Your task to perform on an android device: empty trash in google photos Image 0: 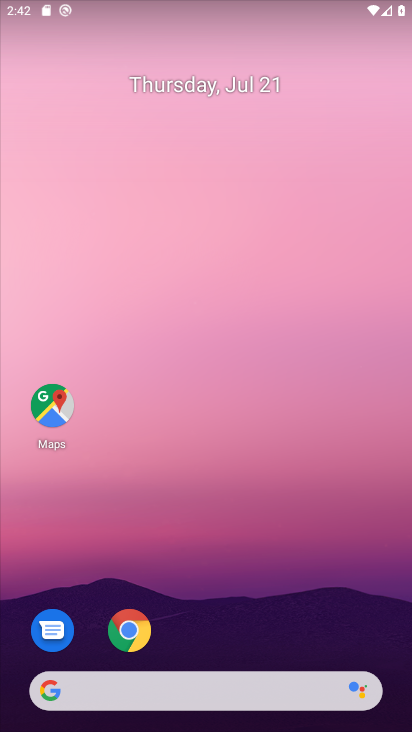
Step 0: drag from (197, 661) to (130, 88)
Your task to perform on an android device: empty trash in google photos Image 1: 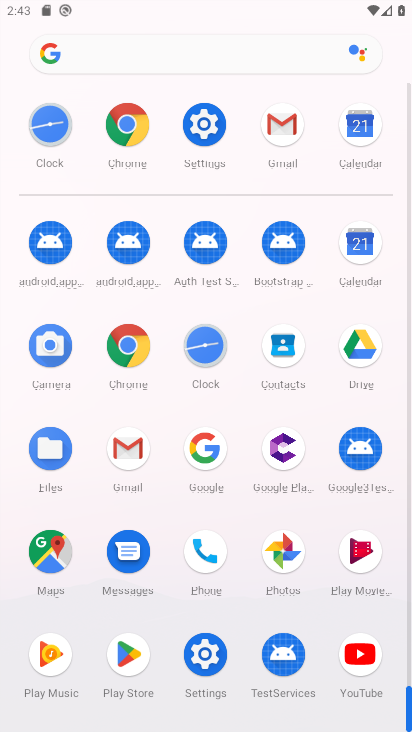
Step 1: click (295, 552)
Your task to perform on an android device: empty trash in google photos Image 2: 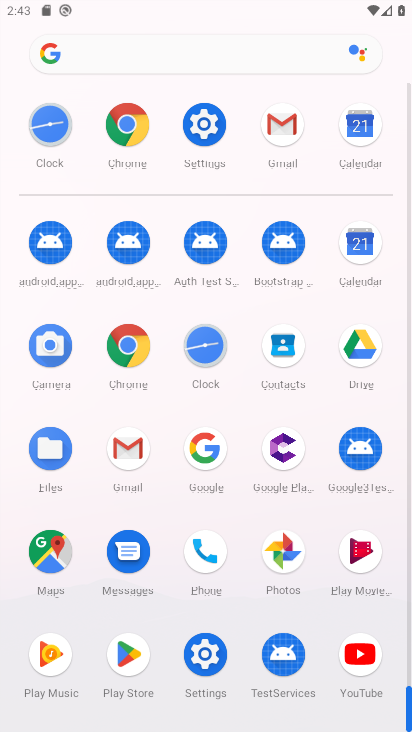
Step 2: click (292, 550)
Your task to perform on an android device: empty trash in google photos Image 3: 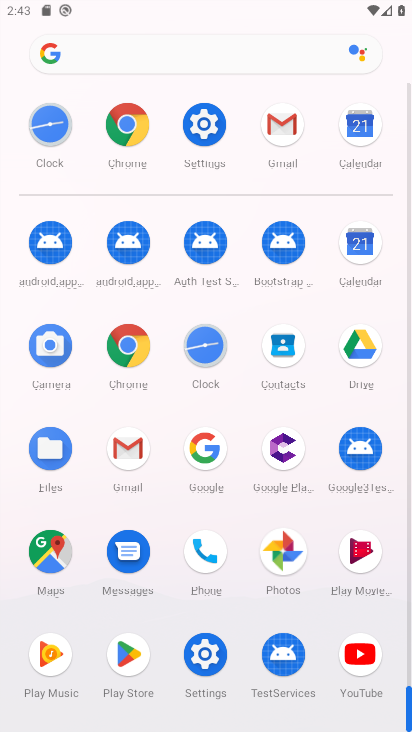
Step 3: click (292, 550)
Your task to perform on an android device: empty trash in google photos Image 4: 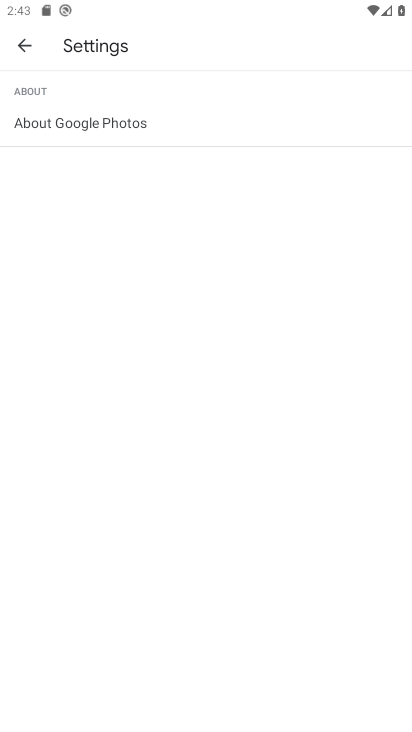
Step 4: click (23, 38)
Your task to perform on an android device: empty trash in google photos Image 5: 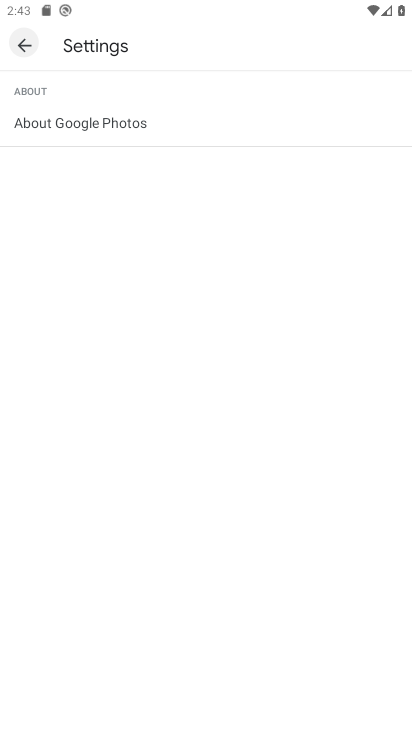
Step 5: click (23, 38)
Your task to perform on an android device: empty trash in google photos Image 6: 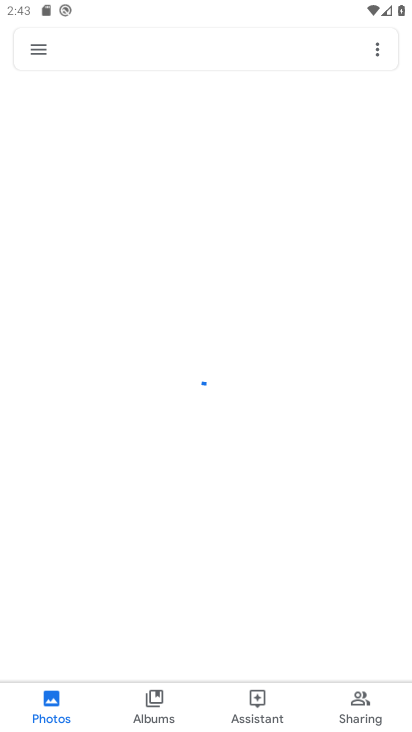
Step 6: click (35, 52)
Your task to perform on an android device: empty trash in google photos Image 7: 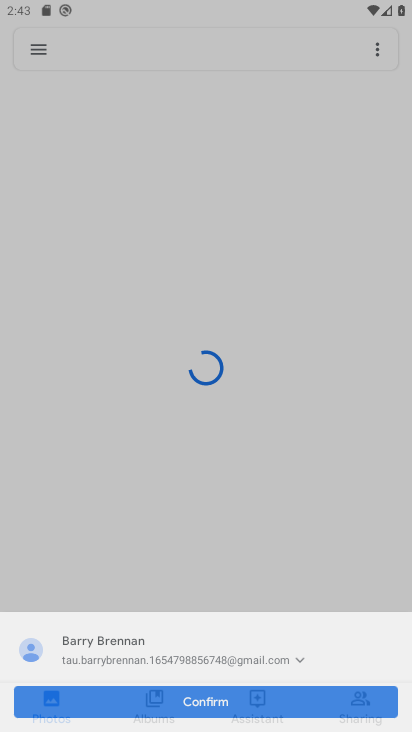
Step 7: click (35, 52)
Your task to perform on an android device: empty trash in google photos Image 8: 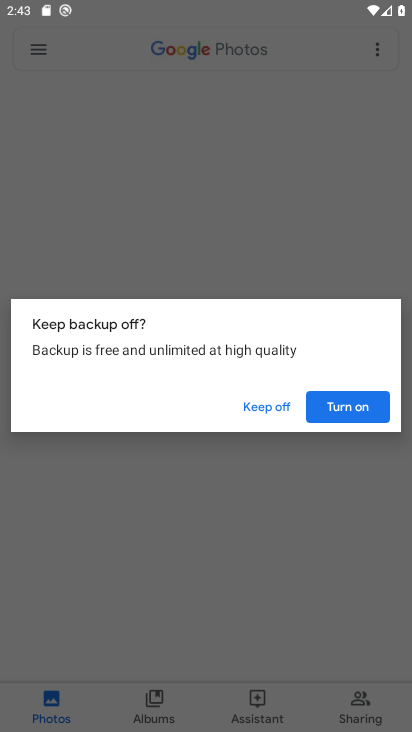
Step 8: drag from (35, 52) to (94, 225)
Your task to perform on an android device: empty trash in google photos Image 9: 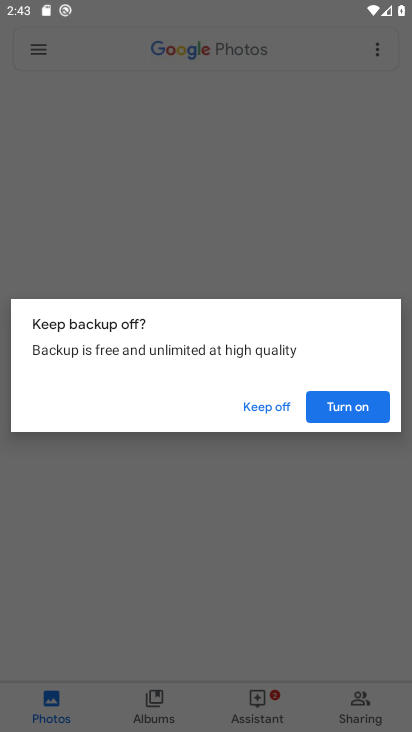
Step 9: click (281, 405)
Your task to perform on an android device: empty trash in google photos Image 10: 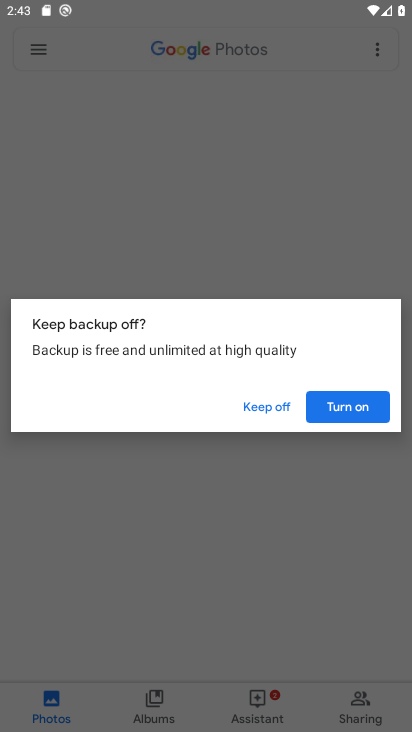
Step 10: click (276, 402)
Your task to perform on an android device: empty trash in google photos Image 11: 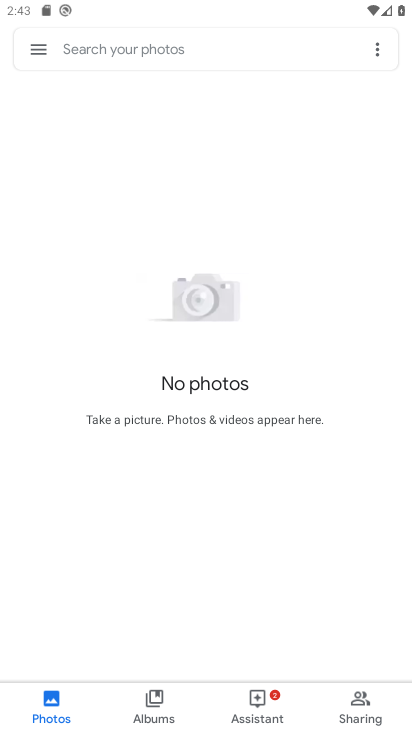
Step 11: click (41, 49)
Your task to perform on an android device: empty trash in google photos Image 12: 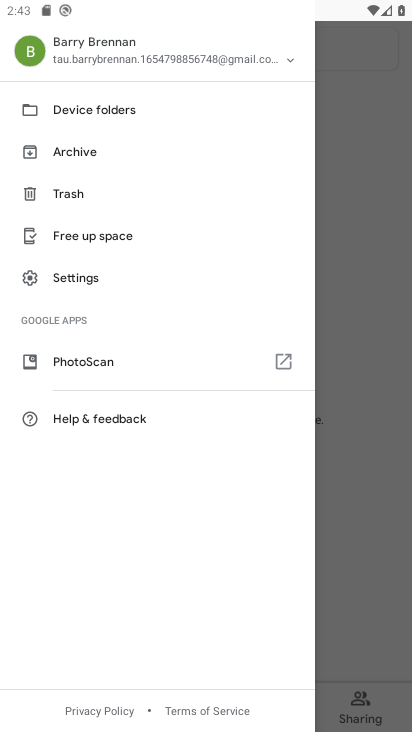
Step 12: click (357, 268)
Your task to perform on an android device: empty trash in google photos Image 13: 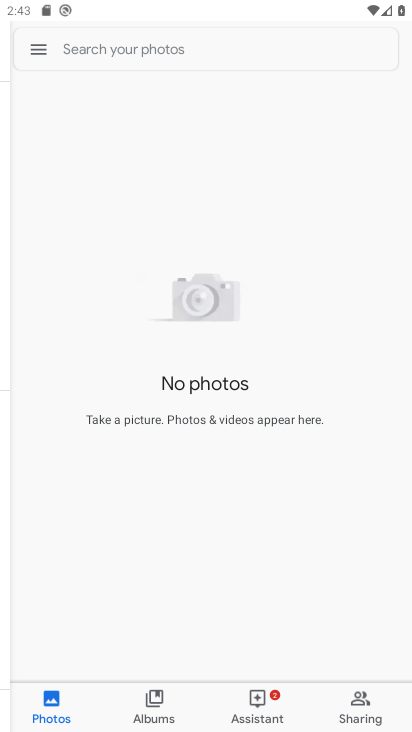
Step 13: click (341, 260)
Your task to perform on an android device: empty trash in google photos Image 14: 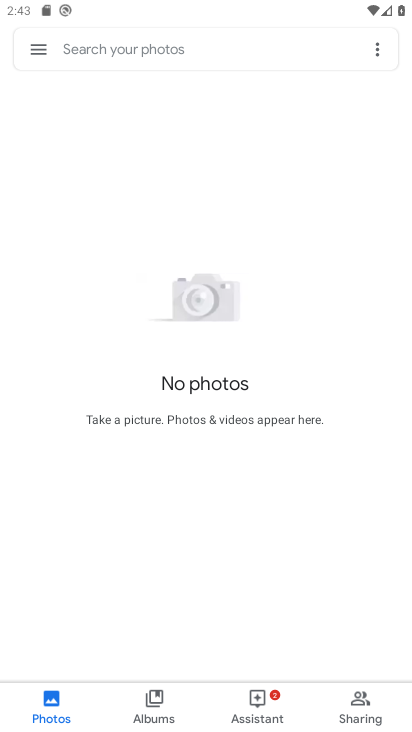
Step 14: press back button
Your task to perform on an android device: empty trash in google photos Image 15: 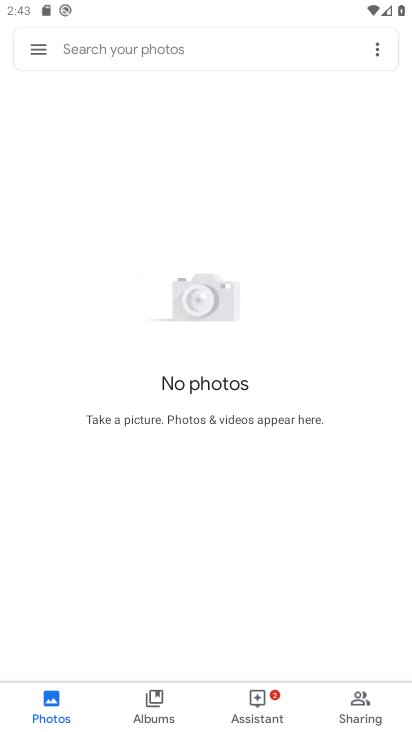
Step 15: press back button
Your task to perform on an android device: empty trash in google photos Image 16: 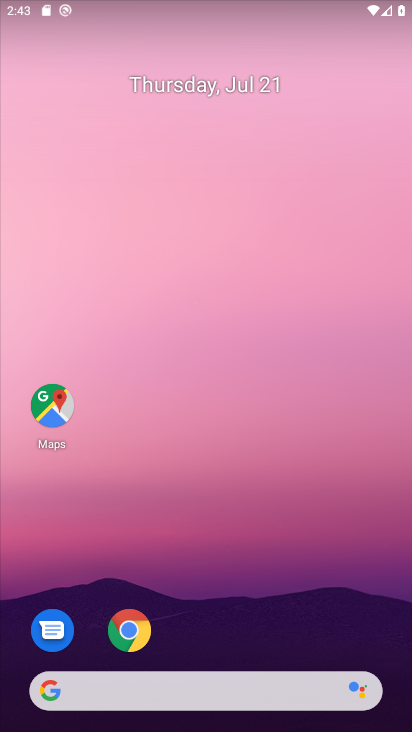
Step 16: drag from (255, 383) to (204, 102)
Your task to perform on an android device: empty trash in google photos Image 17: 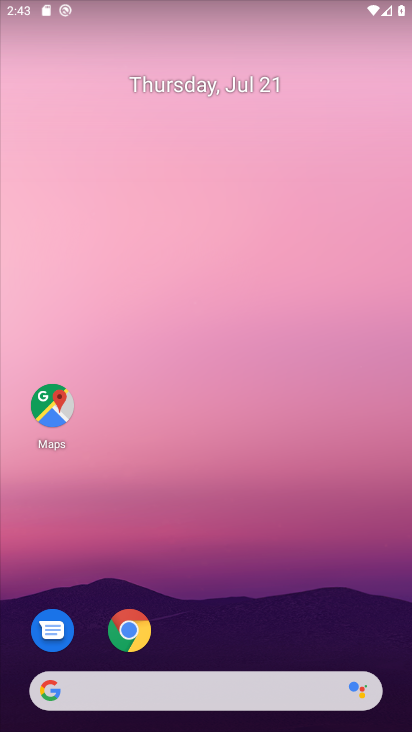
Step 17: drag from (237, 563) to (142, 31)
Your task to perform on an android device: empty trash in google photos Image 18: 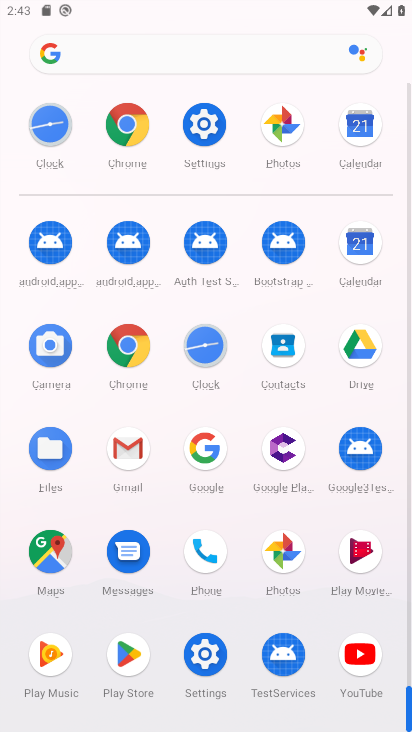
Step 18: click (129, 438)
Your task to perform on an android device: empty trash in google photos Image 19: 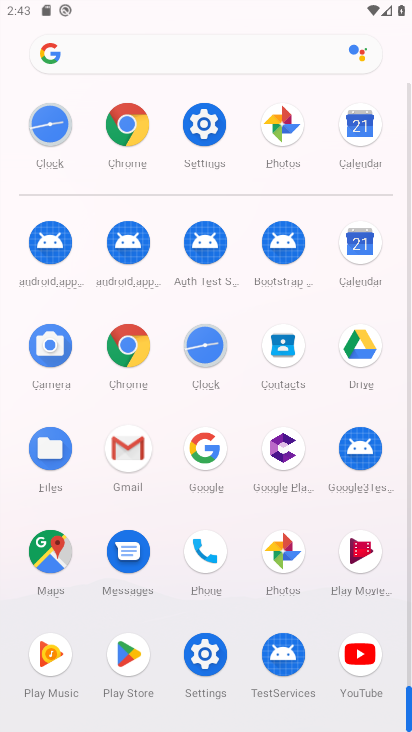
Step 19: click (131, 441)
Your task to perform on an android device: empty trash in google photos Image 20: 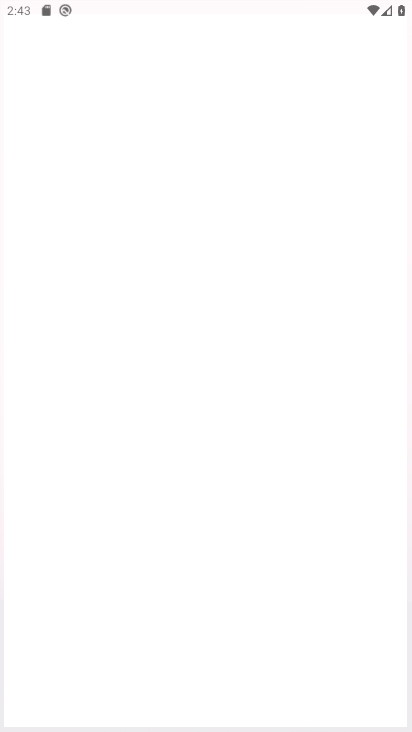
Step 20: click (127, 439)
Your task to perform on an android device: empty trash in google photos Image 21: 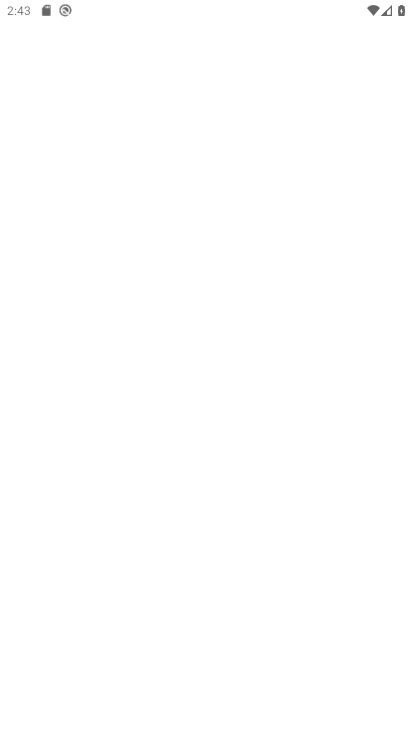
Step 21: click (127, 439)
Your task to perform on an android device: empty trash in google photos Image 22: 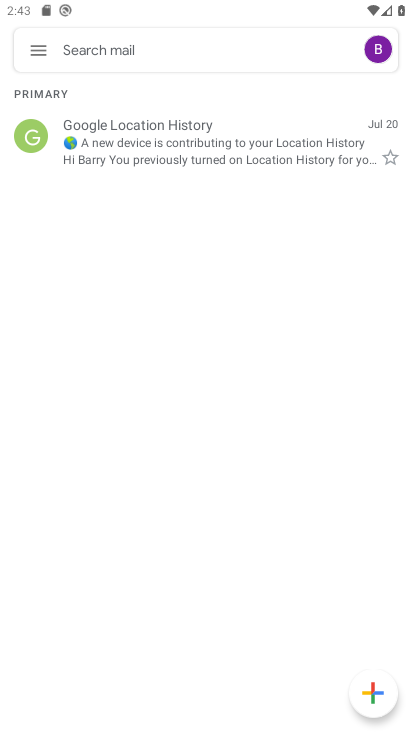
Step 22: drag from (54, 46) to (58, 140)
Your task to perform on an android device: empty trash in google photos Image 23: 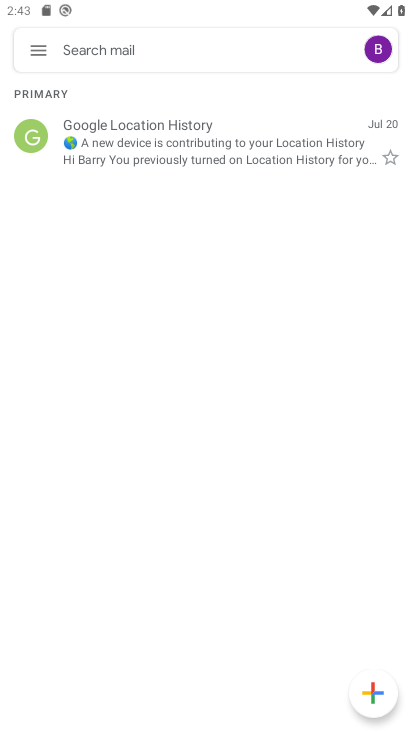
Step 23: press back button
Your task to perform on an android device: empty trash in google photos Image 24: 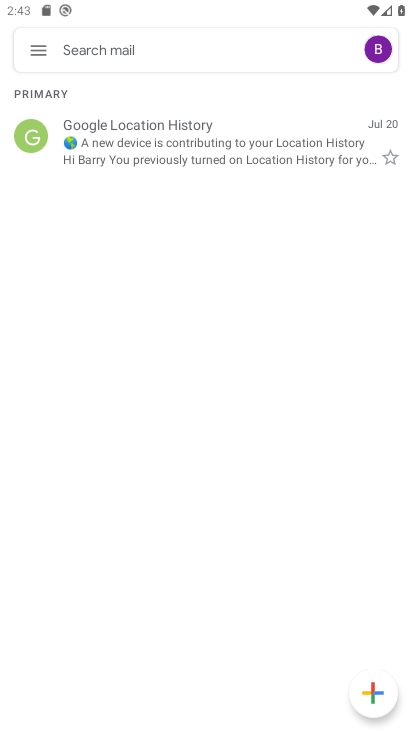
Step 24: press back button
Your task to perform on an android device: empty trash in google photos Image 25: 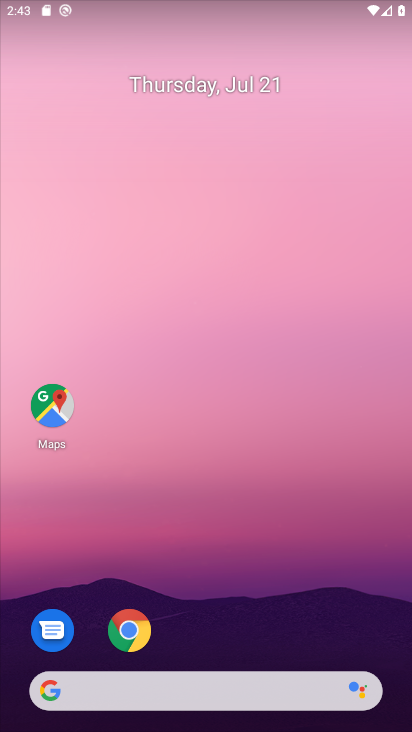
Step 25: drag from (270, 637) to (133, 124)
Your task to perform on an android device: empty trash in google photos Image 26: 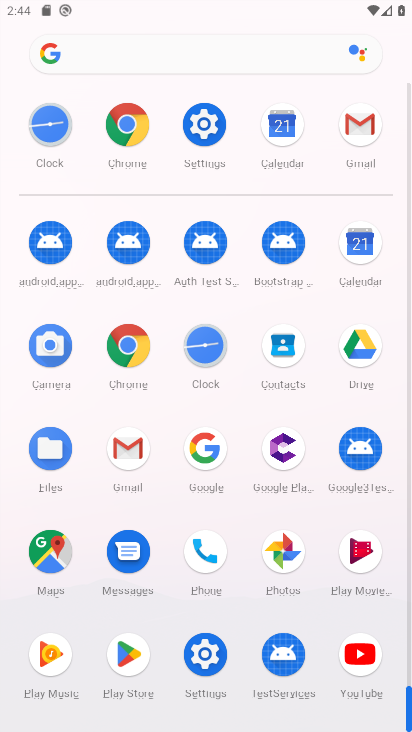
Step 26: click (279, 557)
Your task to perform on an android device: empty trash in google photos Image 27: 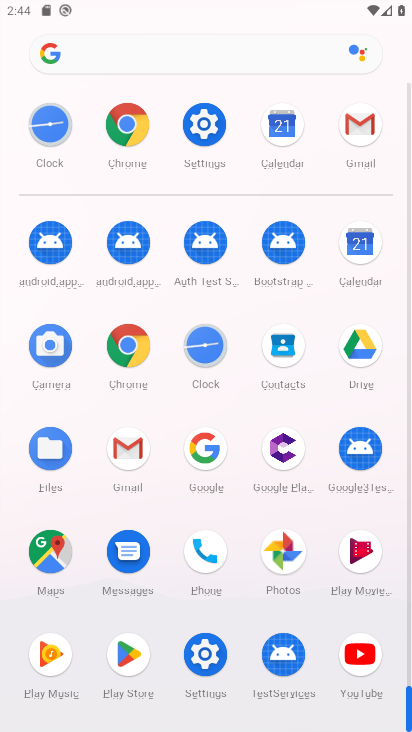
Step 27: click (290, 556)
Your task to perform on an android device: empty trash in google photos Image 28: 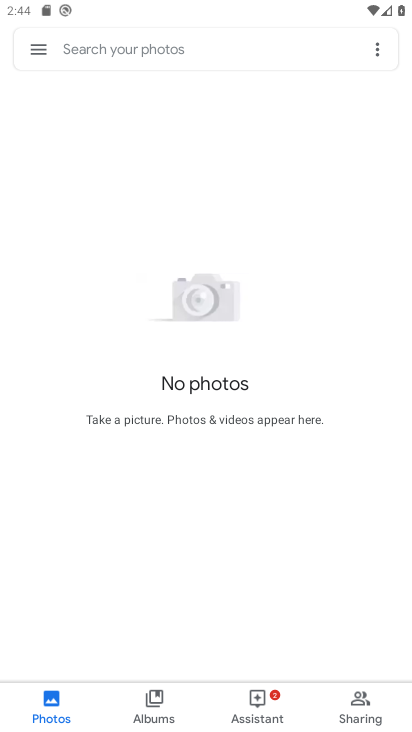
Step 28: click (41, 43)
Your task to perform on an android device: empty trash in google photos Image 29: 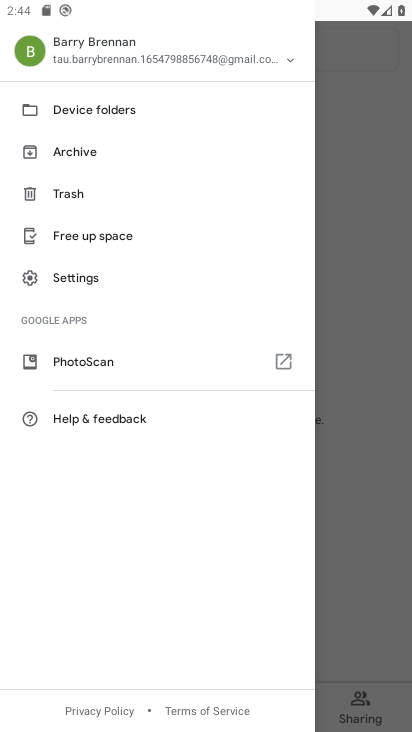
Step 29: click (66, 185)
Your task to perform on an android device: empty trash in google photos Image 30: 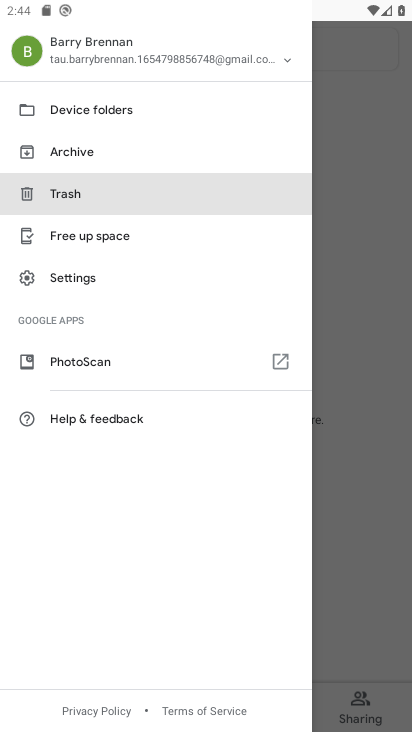
Step 30: click (66, 189)
Your task to perform on an android device: empty trash in google photos Image 31: 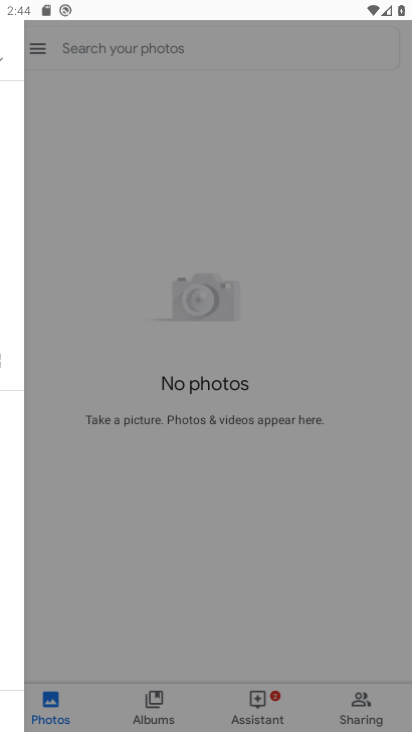
Step 31: click (66, 189)
Your task to perform on an android device: empty trash in google photos Image 32: 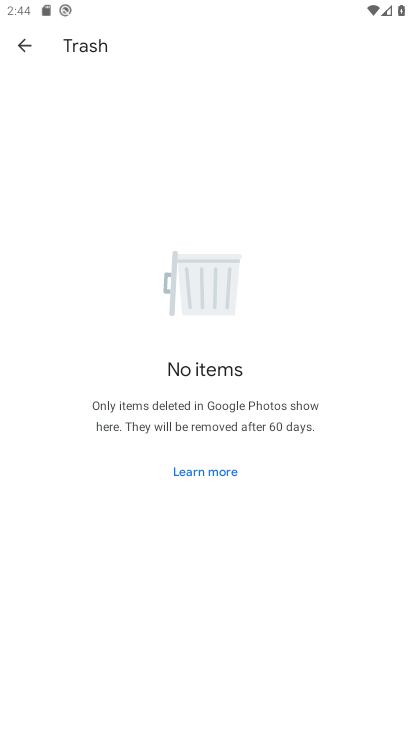
Step 32: task complete